Your task to perform on an android device: Clear all items from cart on target. Add dell xps to the cart on target, then select checkout. Image 0: 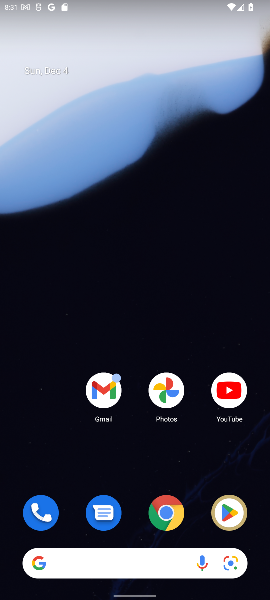
Step 0: click (171, 517)
Your task to perform on an android device: Clear all items from cart on target. Add dell xps to the cart on target, then select checkout. Image 1: 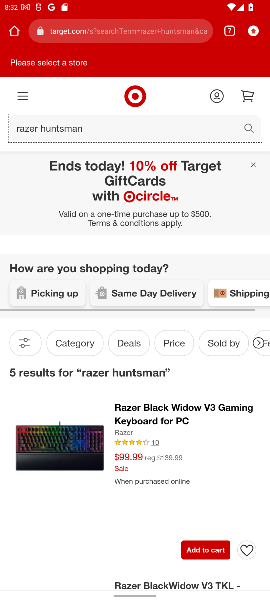
Step 1: click (150, 135)
Your task to perform on an android device: Clear all items from cart on target. Add dell xps to the cart on target, then select checkout. Image 2: 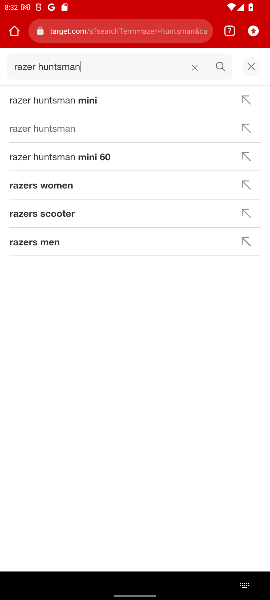
Step 2: click (196, 69)
Your task to perform on an android device: Clear all items from cart on target. Add dell xps to the cart on target, then select checkout. Image 3: 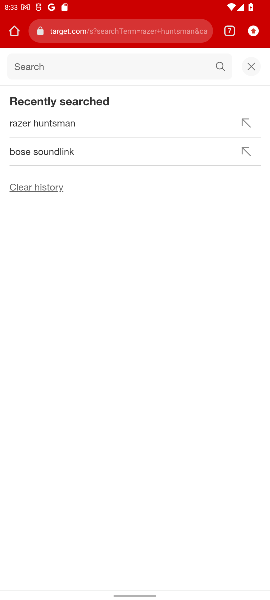
Step 3: type "dell xps"
Your task to perform on an android device: Clear all items from cart on target. Add dell xps to the cart on target, then select checkout. Image 4: 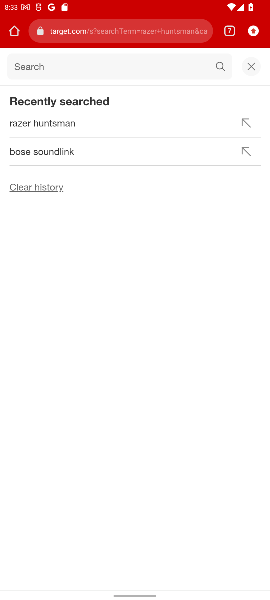
Step 4: click (36, 69)
Your task to perform on an android device: Clear all items from cart on target. Add dell xps to the cart on target, then select checkout. Image 5: 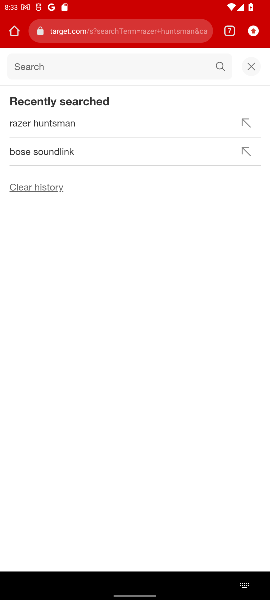
Step 5: type "dell xps"
Your task to perform on an android device: Clear all items from cart on target. Add dell xps to the cart on target, then select checkout. Image 6: 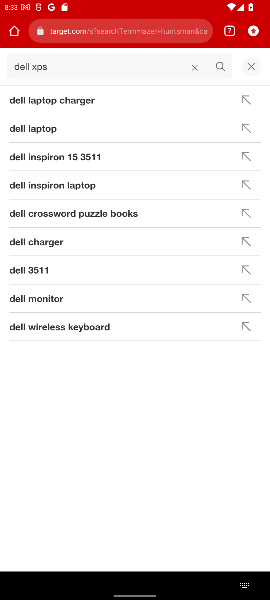
Step 6: click (220, 65)
Your task to perform on an android device: Clear all items from cart on target. Add dell xps to the cart on target, then select checkout. Image 7: 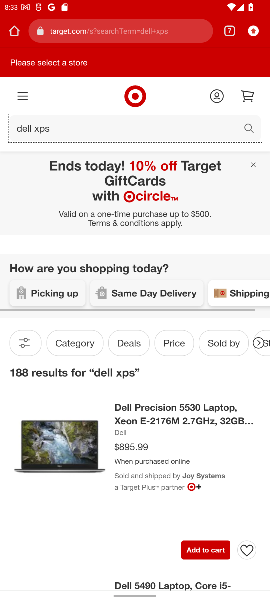
Step 7: task complete